Your task to perform on an android device: Toggle the flashlight Image 0: 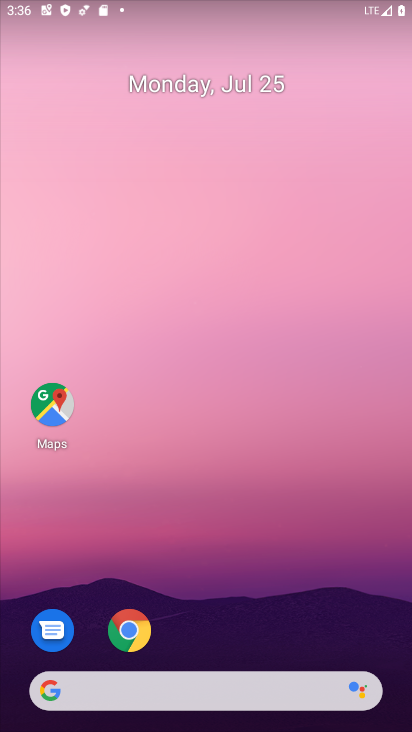
Step 0: drag from (215, 592) to (248, 1)
Your task to perform on an android device: Toggle the flashlight Image 1: 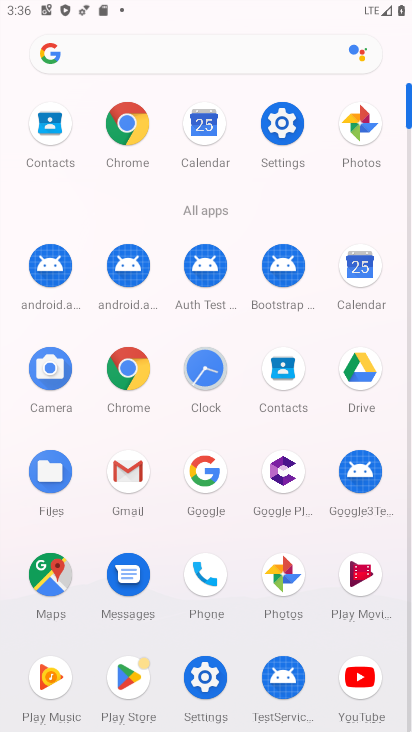
Step 1: click (215, 670)
Your task to perform on an android device: Toggle the flashlight Image 2: 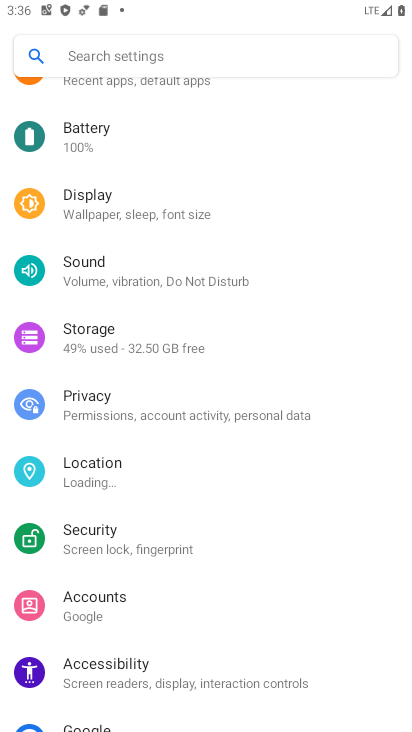
Step 2: click (188, 54)
Your task to perform on an android device: Toggle the flashlight Image 3: 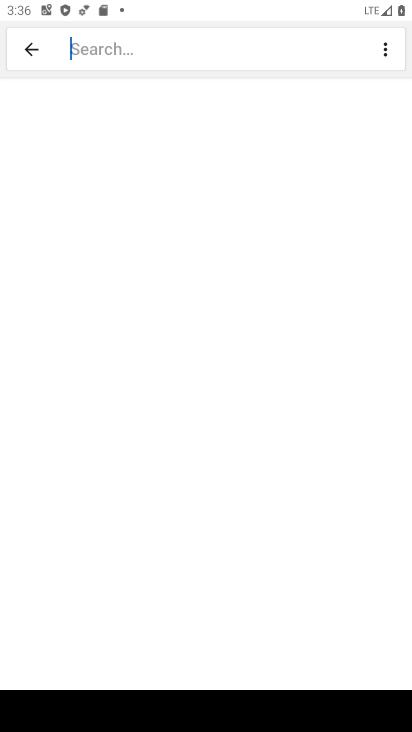
Step 3: type "flashlight"
Your task to perform on an android device: Toggle the flashlight Image 4: 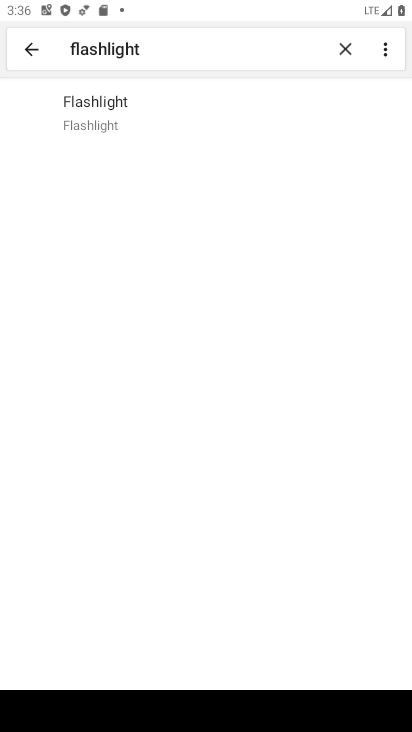
Step 4: click (79, 119)
Your task to perform on an android device: Toggle the flashlight Image 5: 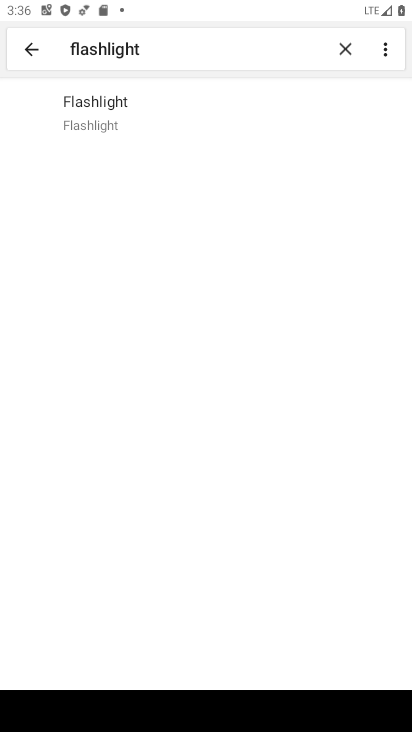
Step 5: click (79, 119)
Your task to perform on an android device: Toggle the flashlight Image 6: 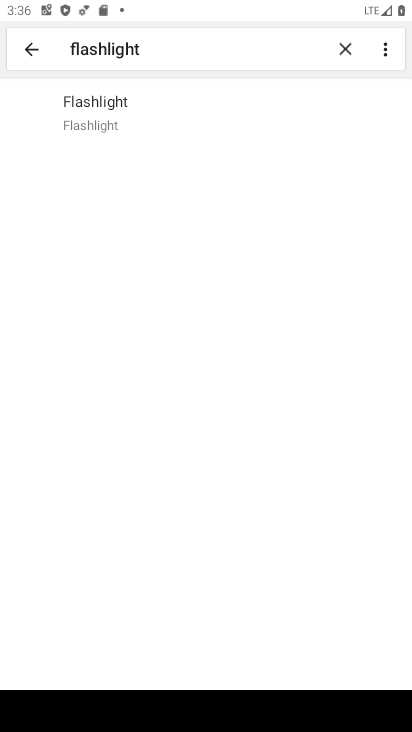
Step 6: click (92, 106)
Your task to perform on an android device: Toggle the flashlight Image 7: 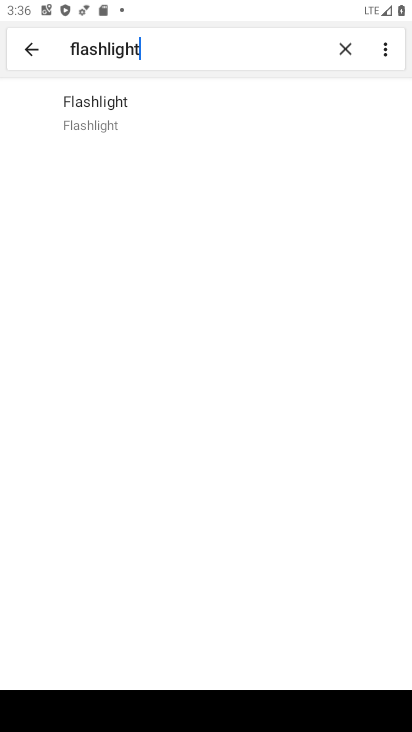
Step 7: task complete